Your task to perform on an android device: Go to privacy settings Image 0: 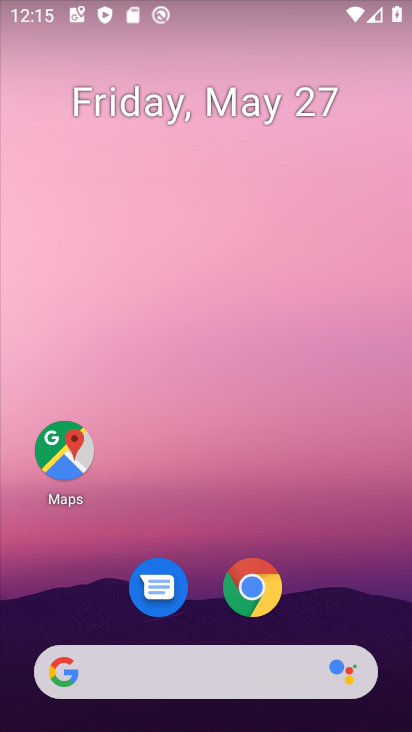
Step 0: drag from (128, 729) to (180, 67)
Your task to perform on an android device: Go to privacy settings Image 1: 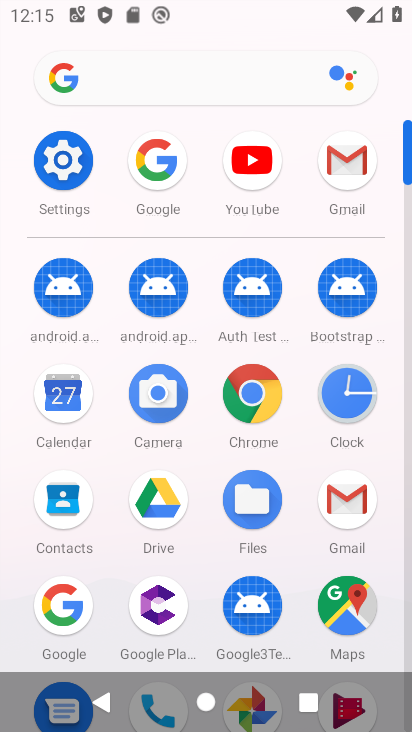
Step 1: click (62, 175)
Your task to perform on an android device: Go to privacy settings Image 2: 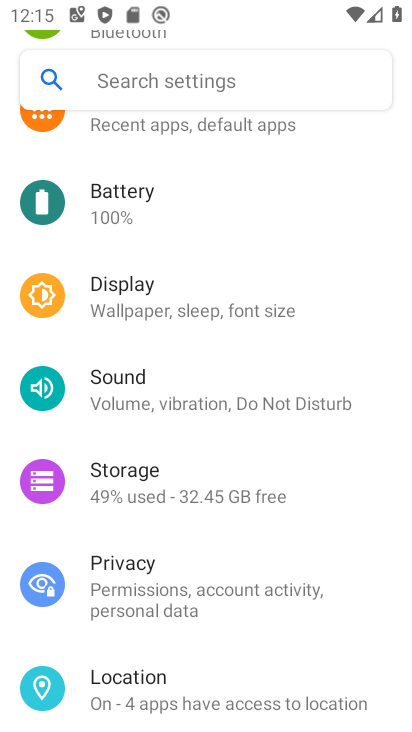
Step 2: click (191, 193)
Your task to perform on an android device: Go to privacy settings Image 3: 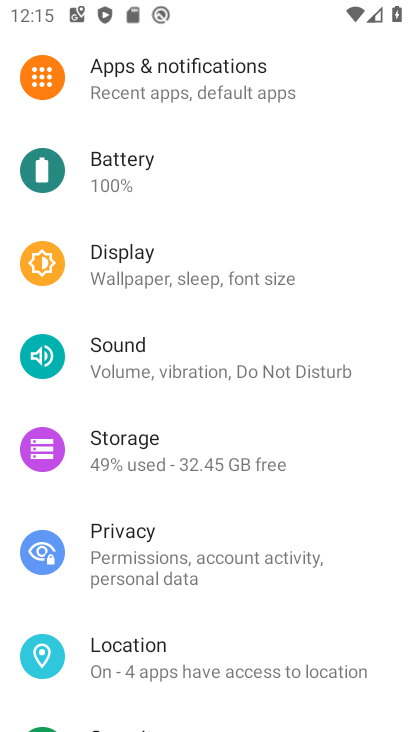
Step 3: click (129, 565)
Your task to perform on an android device: Go to privacy settings Image 4: 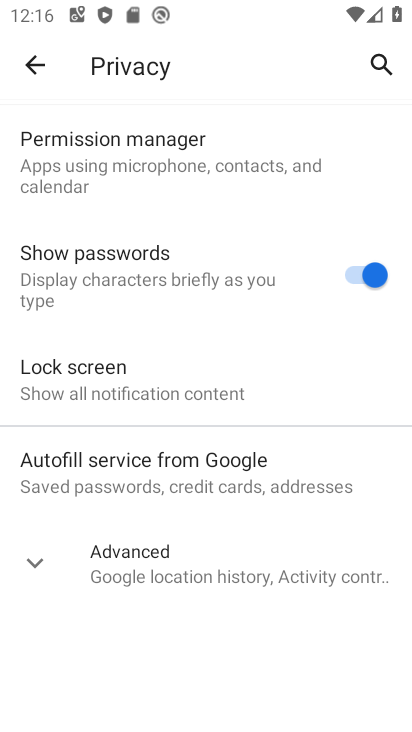
Step 4: task complete